Your task to perform on an android device: turn on location history Image 0: 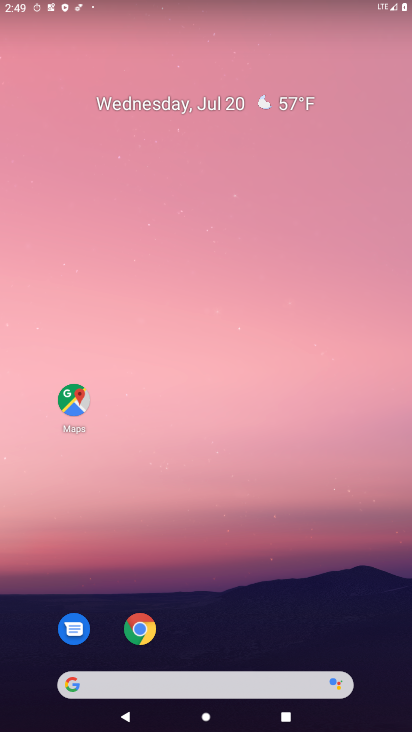
Step 0: drag from (198, 670) to (231, 129)
Your task to perform on an android device: turn on location history Image 1: 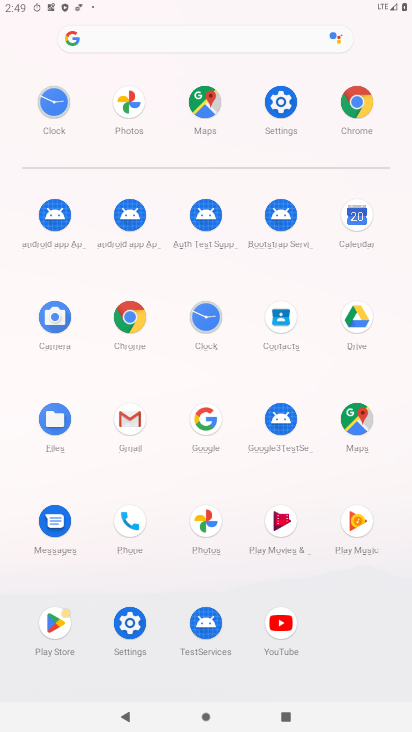
Step 1: click (272, 112)
Your task to perform on an android device: turn on location history Image 2: 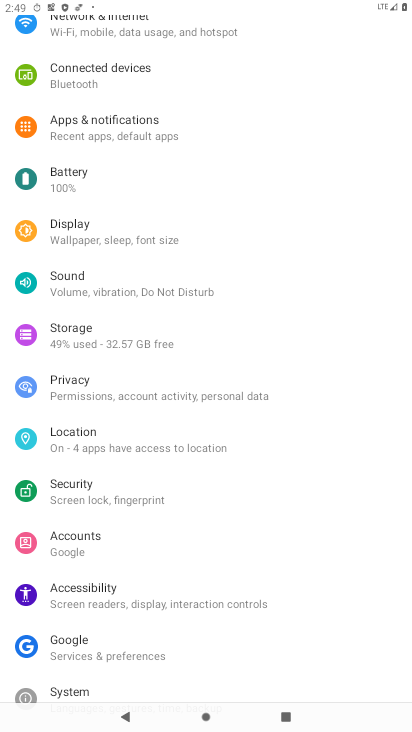
Step 2: click (70, 433)
Your task to perform on an android device: turn on location history Image 3: 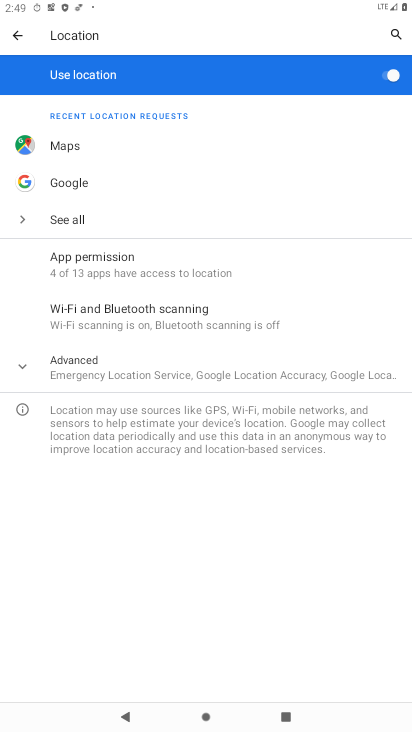
Step 3: click (89, 366)
Your task to perform on an android device: turn on location history Image 4: 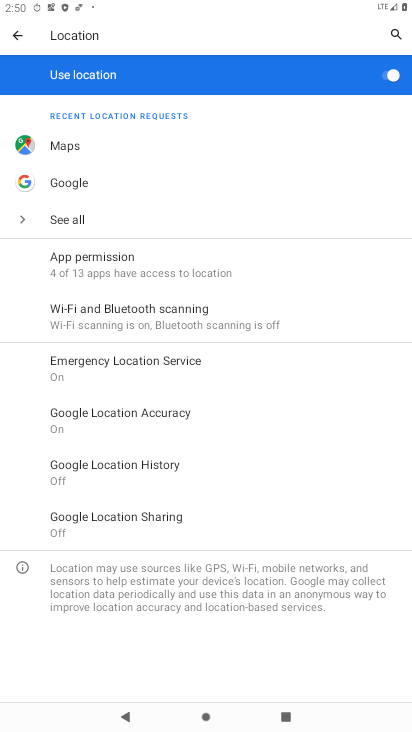
Step 4: click (159, 455)
Your task to perform on an android device: turn on location history Image 5: 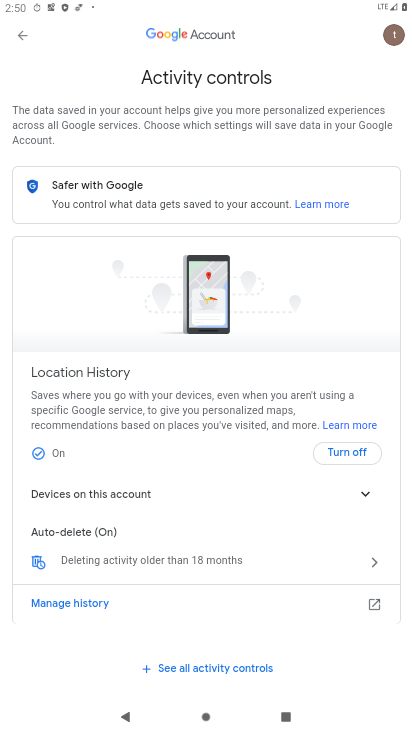
Step 5: task complete